Your task to perform on an android device: check data usage Image 0: 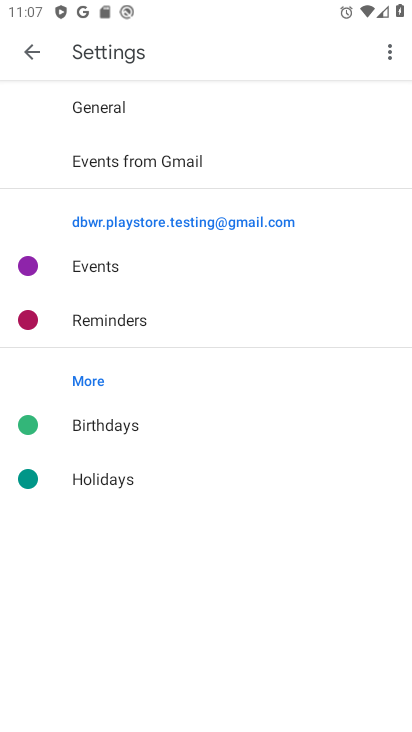
Step 0: press home button
Your task to perform on an android device: check data usage Image 1: 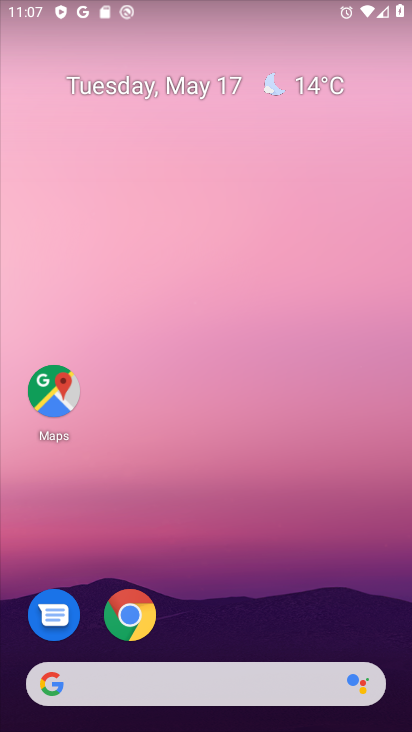
Step 1: drag from (309, 585) to (292, 109)
Your task to perform on an android device: check data usage Image 2: 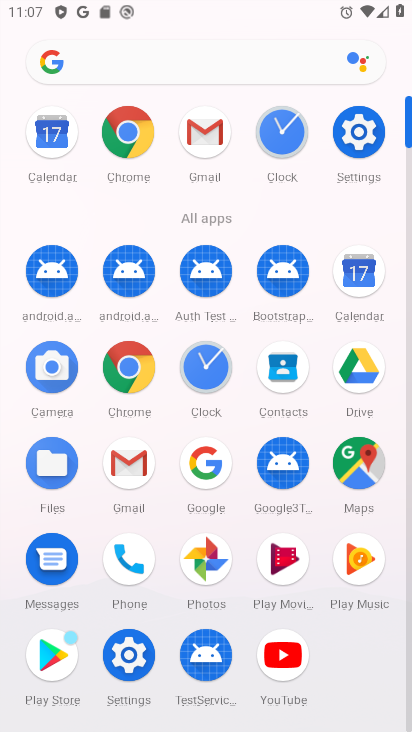
Step 2: click (362, 128)
Your task to perform on an android device: check data usage Image 3: 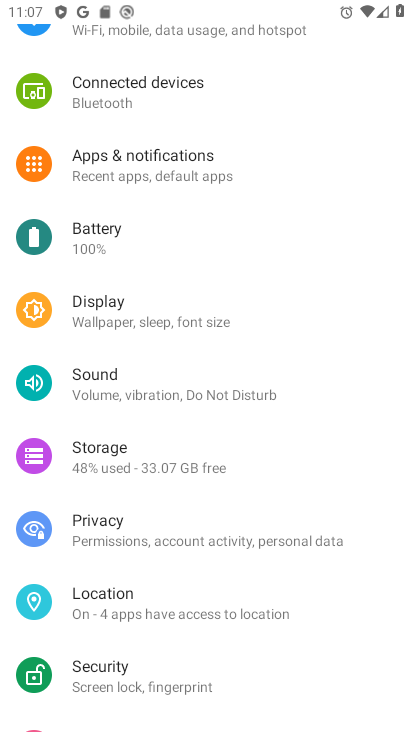
Step 3: drag from (172, 582) to (271, 729)
Your task to perform on an android device: check data usage Image 4: 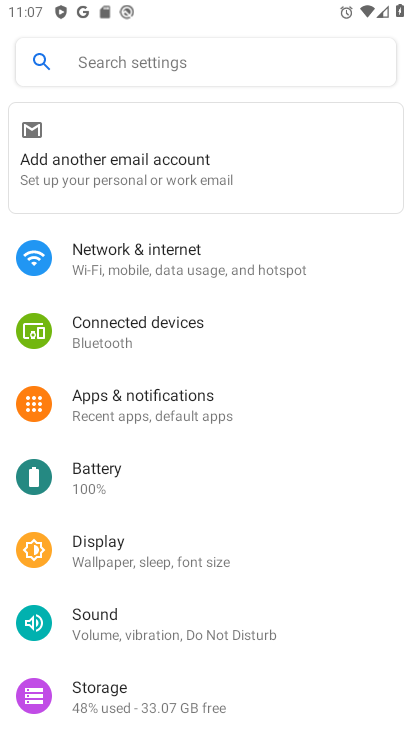
Step 4: drag from (287, 535) to (323, 274)
Your task to perform on an android device: check data usage Image 5: 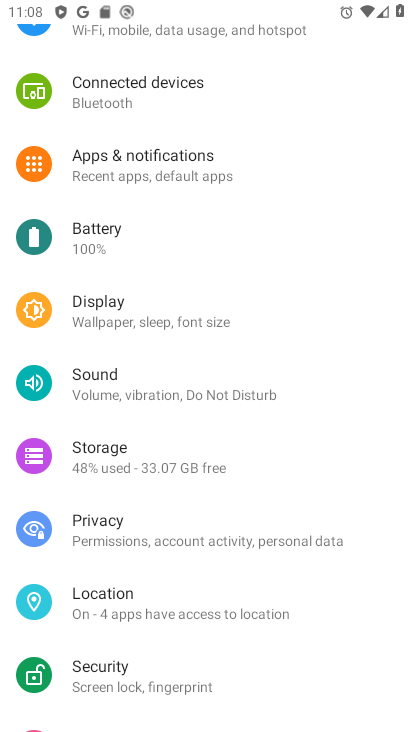
Step 5: drag from (168, 92) to (195, 385)
Your task to perform on an android device: check data usage Image 6: 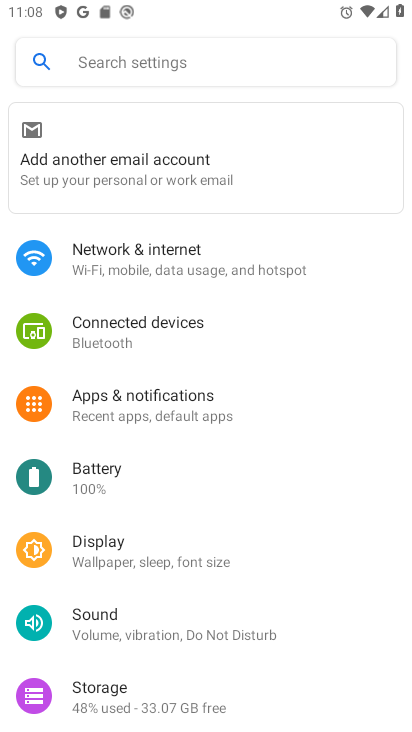
Step 6: click (156, 269)
Your task to perform on an android device: check data usage Image 7: 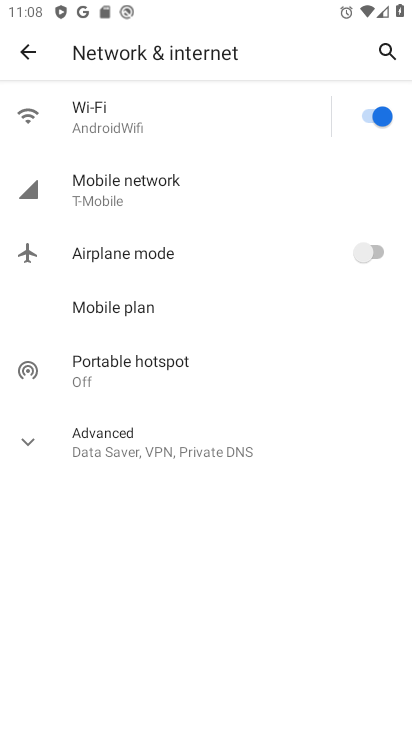
Step 7: click (141, 186)
Your task to perform on an android device: check data usage Image 8: 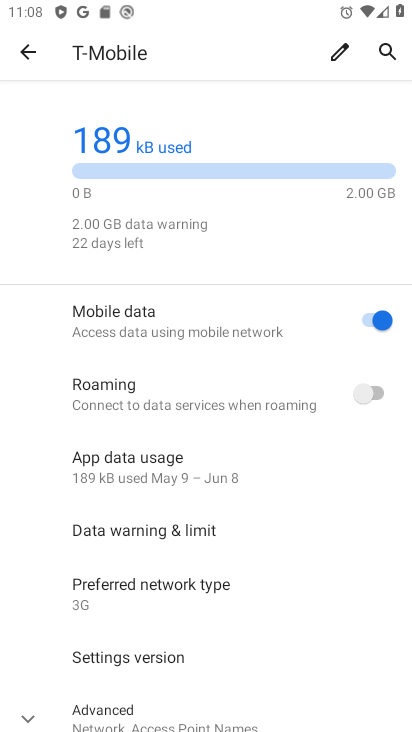
Step 8: task complete